Your task to perform on an android device: Open accessibility settings Image 0: 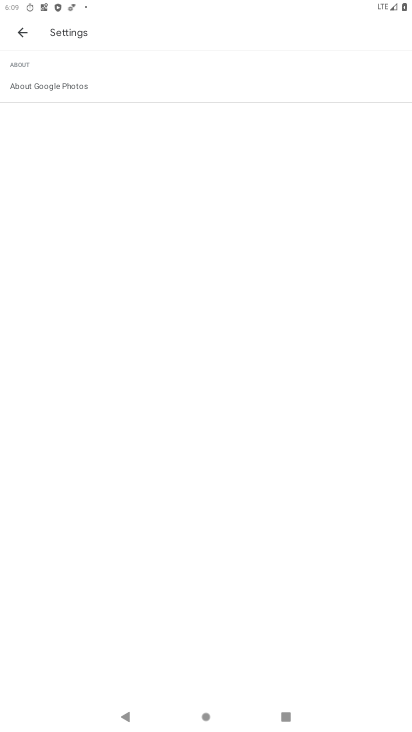
Step 0: press home button
Your task to perform on an android device: Open accessibility settings Image 1: 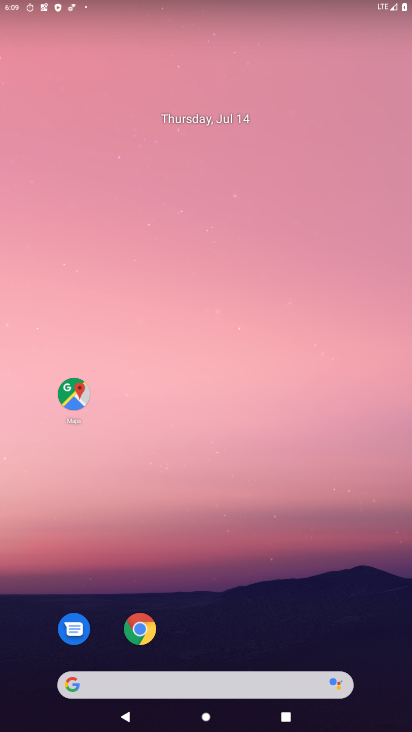
Step 1: drag from (279, 686) to (237, 4)
Your task to perform on an android device: Open accessibility settings Image 2: 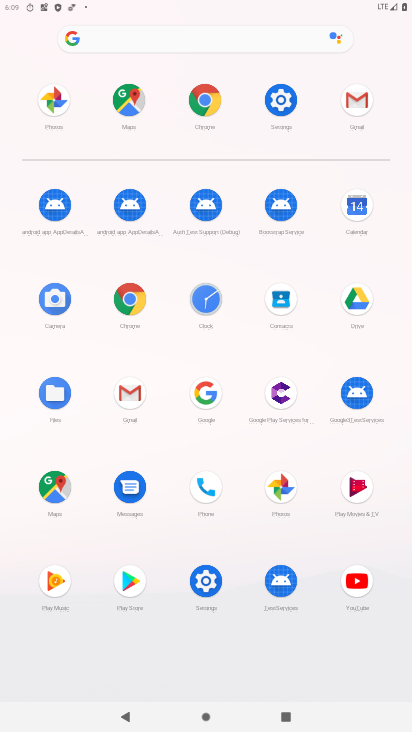
Step 2: click (290, 100)
Your task to perform on an android device: Open accessibility settings Image 3: 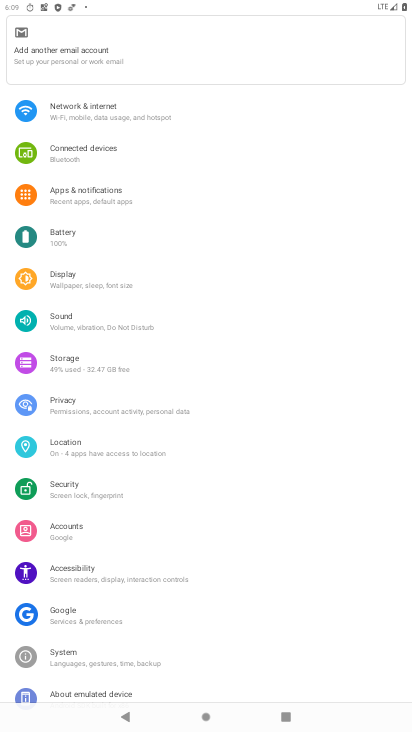
Step 3: click (103, 569)
Your task to perform on an android device: Open accessibility settings Image 4: 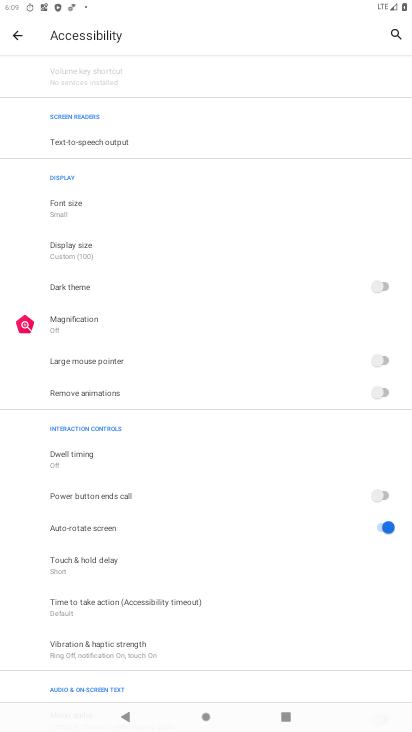
Step 4: task complete